Your task to perform on an android device: Go to Android settings Image 0: 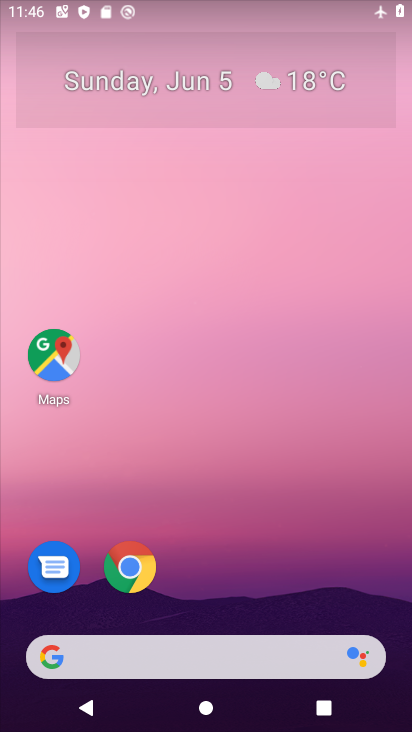
Step 0: drag from (233, 488) to (239, 0)
Your task to perform on an android device: Go to Android settings Image 1: 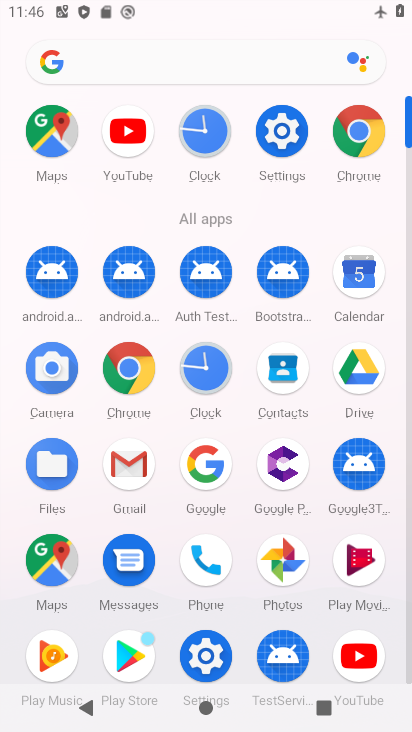
Step 1: click (284, 130)
Your task to perform on an android device: Go to Android settings Image 2: 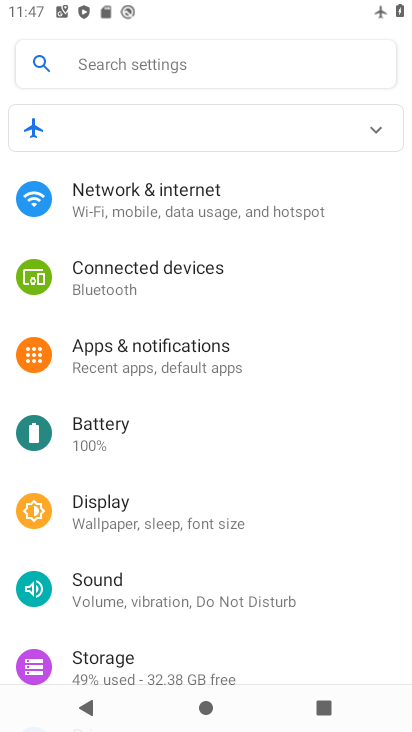
Step 2: drag from (242, 627) to (293, 8)
Your task to perform on an android device: Go to Android settings Image 3: 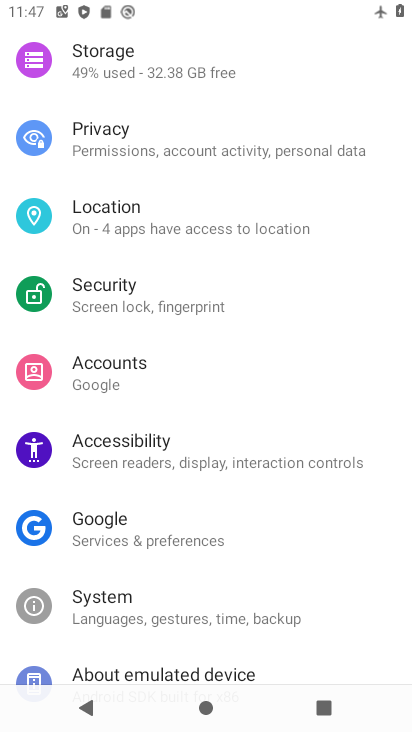
Step 3: drag from (218, 531) to (263, 132)
Your task to perform on an android device: Go to Android settings Image 4: 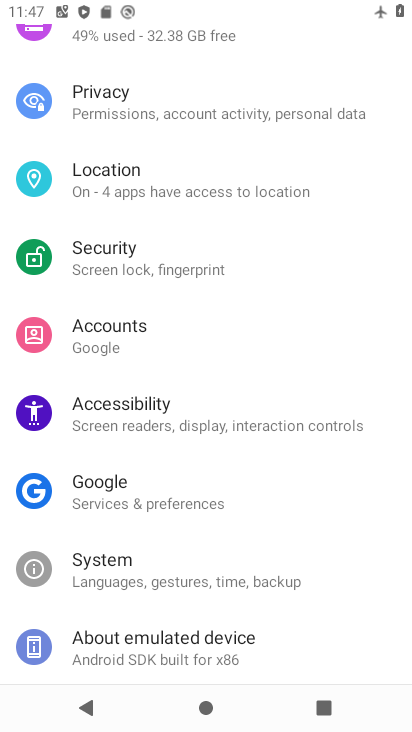
Step 4: click (220, 631)
Your task to perform on an android device: Go to Android settings Image 5: 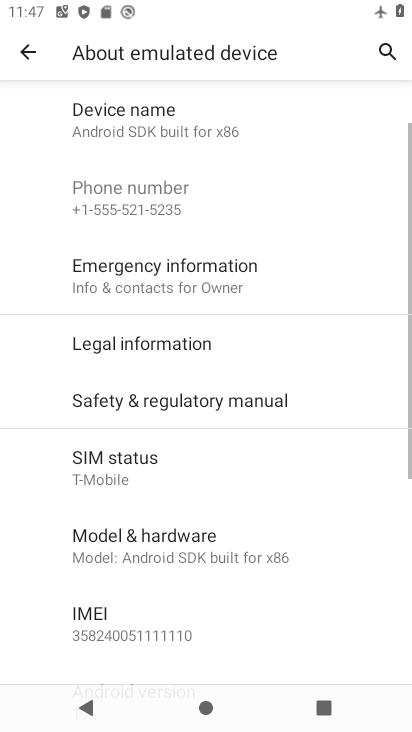
Step 5: task complete